Your task to perform on an android device: Open Yahoo.com Image 0: 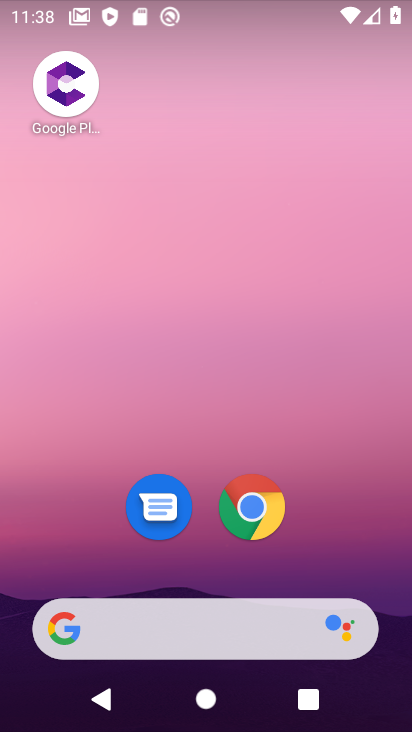
Step 0: click (259, 511)
Your task to perform on an android device: Open Yahoo.com Image 1: 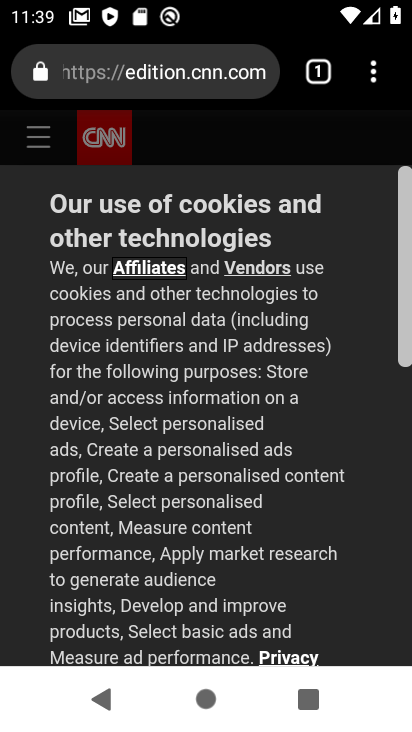
Step 1: click (377, 72)
Your task to perform on an android device: Open Yahoo.com Image 2: 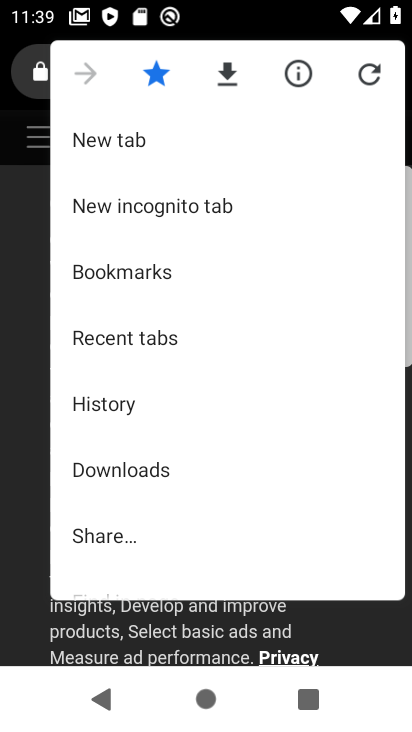
Step 2: click (110, 141)
Your task to perform on an android device: Open Yahoo.com Image 3: 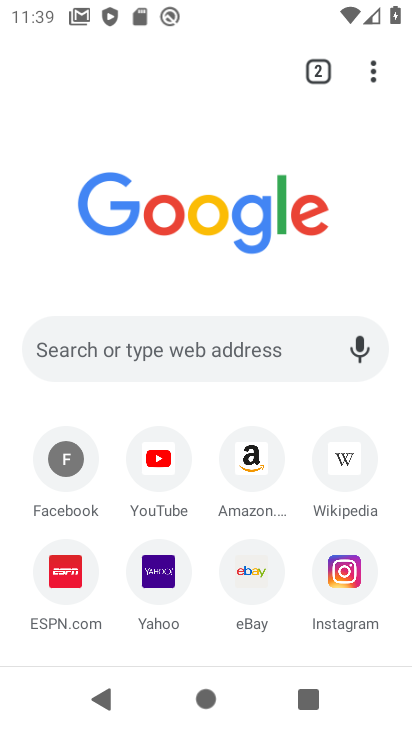
Step 3: click (153, 577)
Your task to perform on an android device: Open Yahoo.com Image 4: 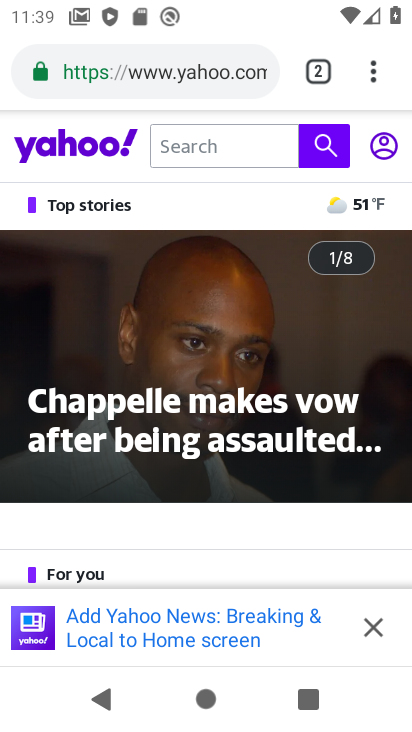
Step 4: task complete